Your task to perform on an android device: change your default location settings in chrome Image 0: 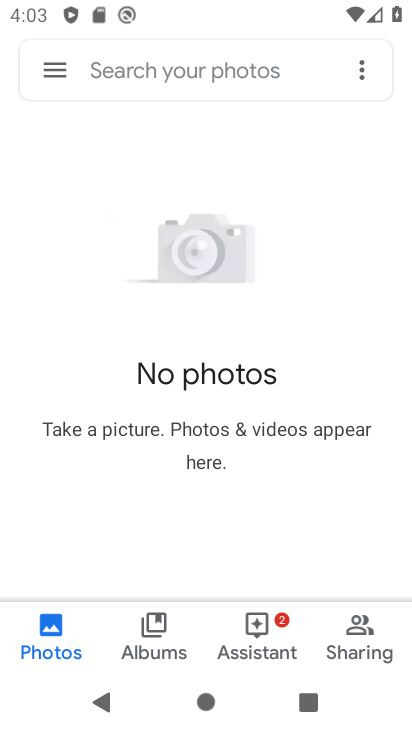
Step 0: press home button
Your task to perform on an android device: change your default location settings in chrome Image 1: 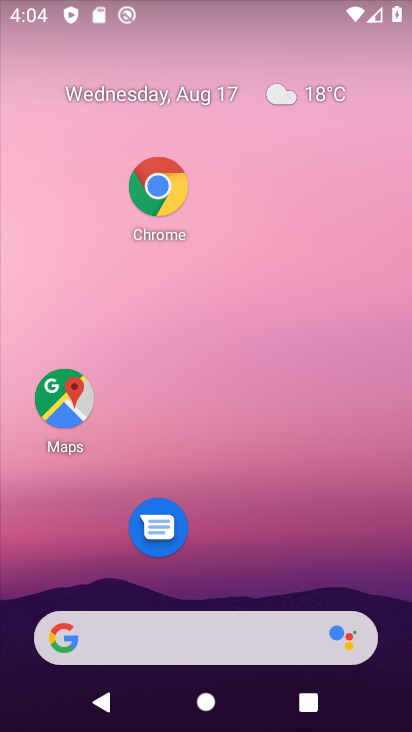
Step 1: click (154, 185)
Your task to perform on an android device: change your default location settings in chrome Image 2: 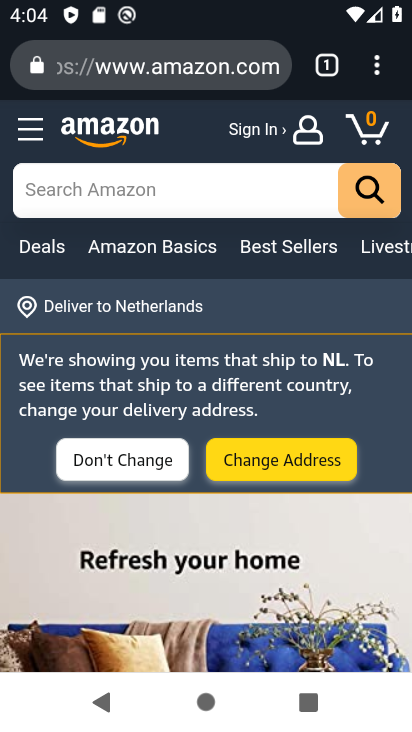
Step 2: click (388, 65)
Your task to perform on an android device: change your default location settings in chrome Image 3: 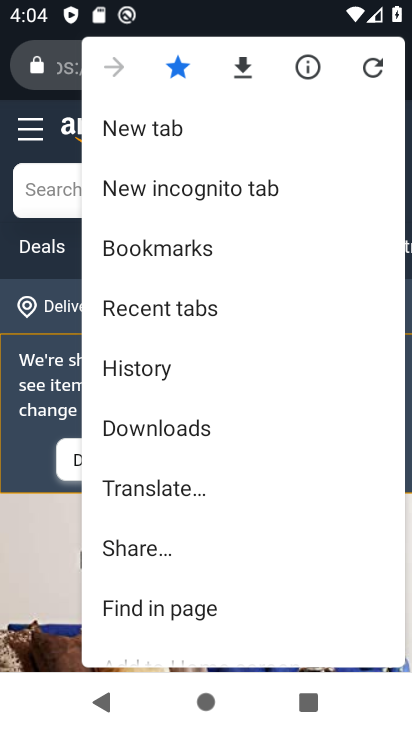
Step 3: drag from (165, 638) to (243, 11)
Your task to perform on an android device: change your default location settings in chrome Image 4: 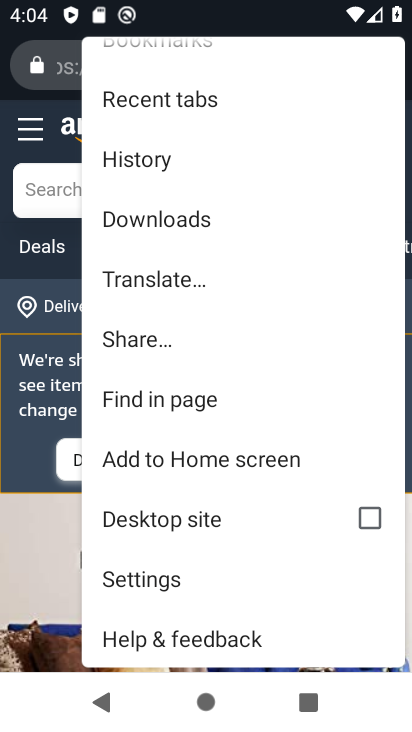
Step 4: click (132, 581)
Your task to perform on an android device: change your default location settings in chrome Image 5: 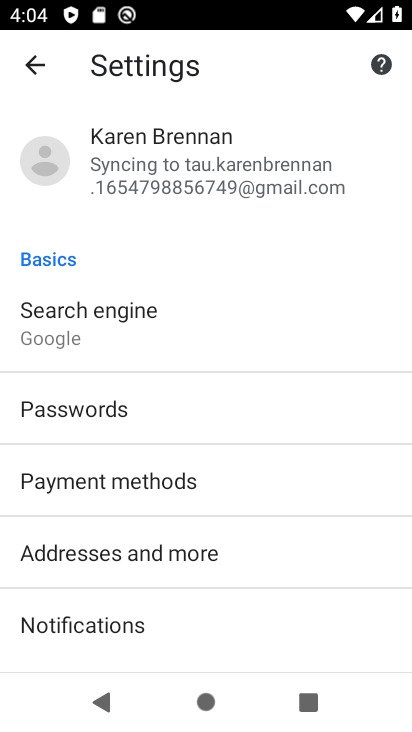
Step 5: drag from (186, 660) to (409, 32)
Your task to perform on an android device: change your default location settings in chrome Image 6: 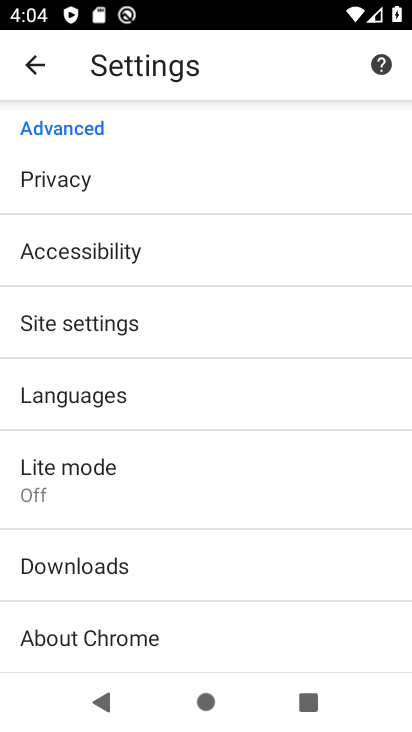
Step 6: click (192, 313)
Your task to perform on an android device: change your default location settings in chrome Image 7: 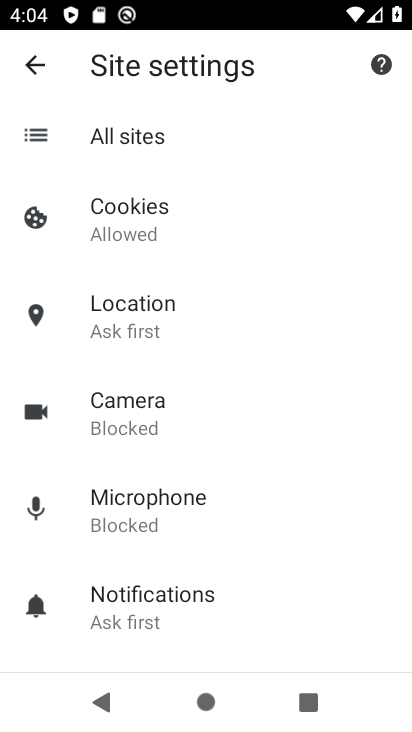
Step 7: click (192, 313)
Your task to perform on an android device: change your default location settings in chrome Image 8: 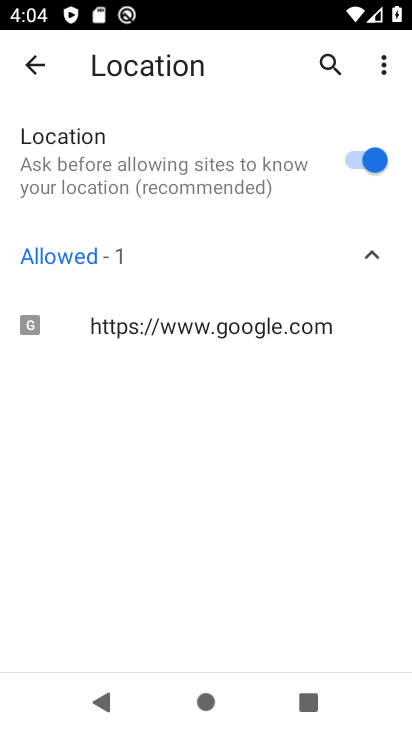
Step 8: click (355, 155)
Your task to perform on an android device: change your default location settings in chrome Image 9: 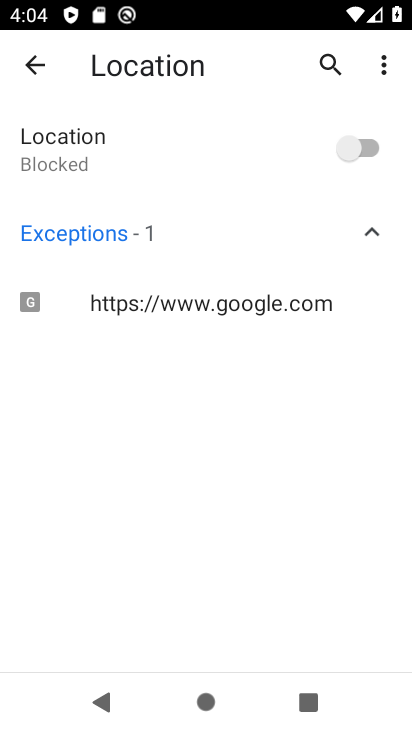
Step 9: task complete